Your task to perform on an android device: open app "Airtel Thanks" Image 0: 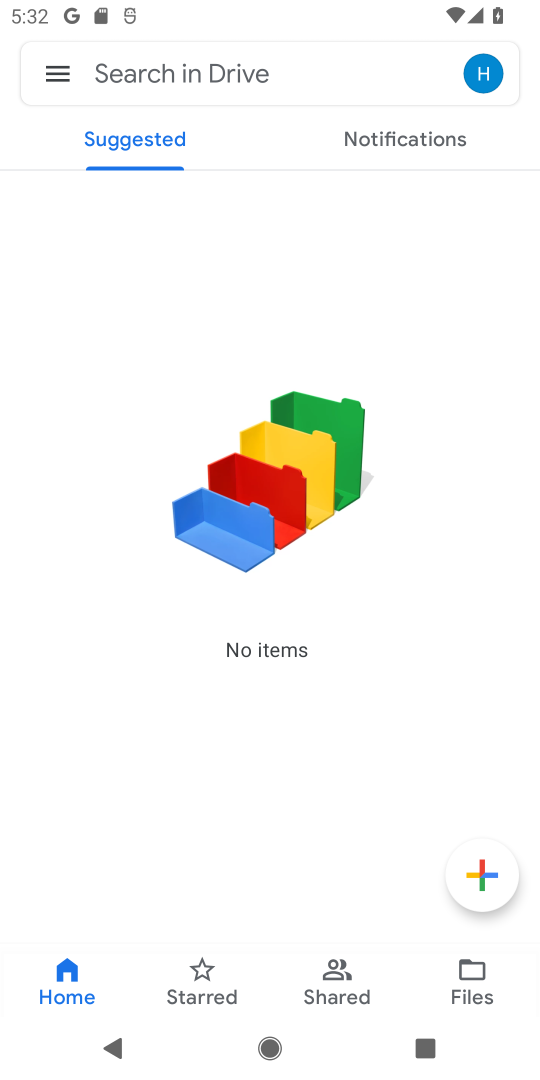
Step 0: press back button
Your task to perform on an android device: open app "Airtel Thanks" Image 1: 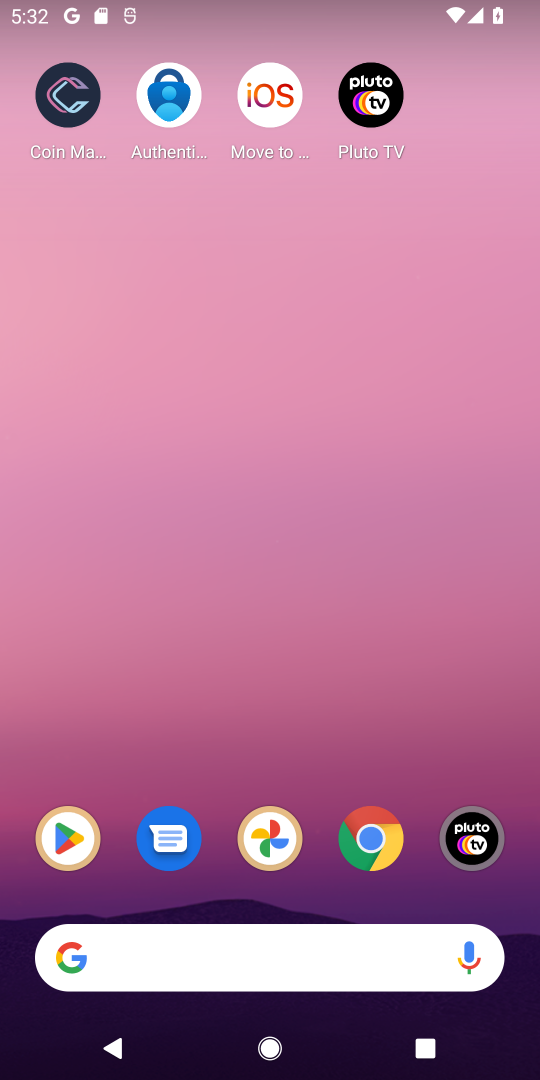
Step 1: click (69, 834)
Your task to perform on an android device: open app "Airtel Thanks" Image 2: 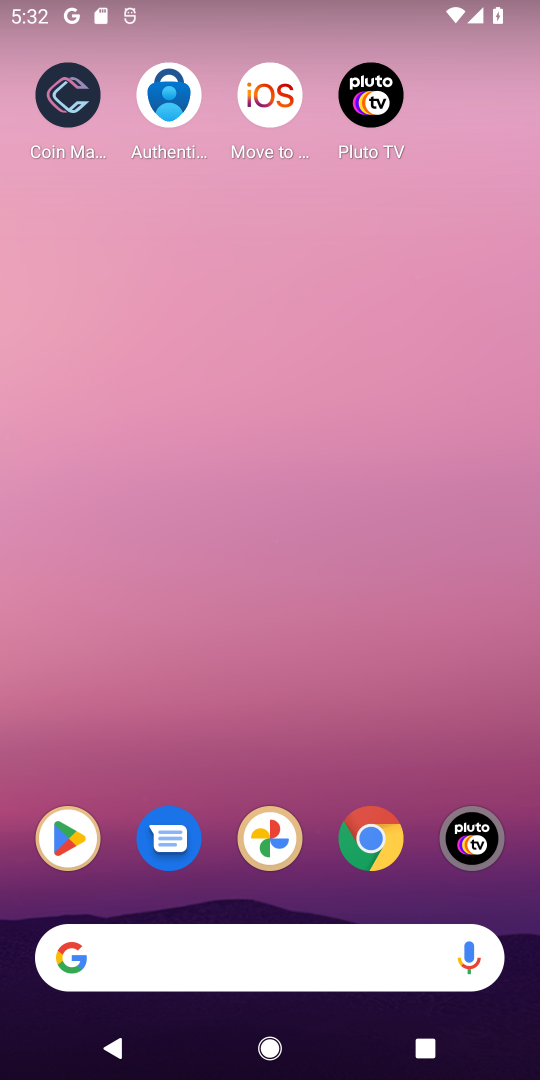
Step 2: click (64, 824)
Your task to perform on an android device: open app "Airtel Thanks" Image 3: 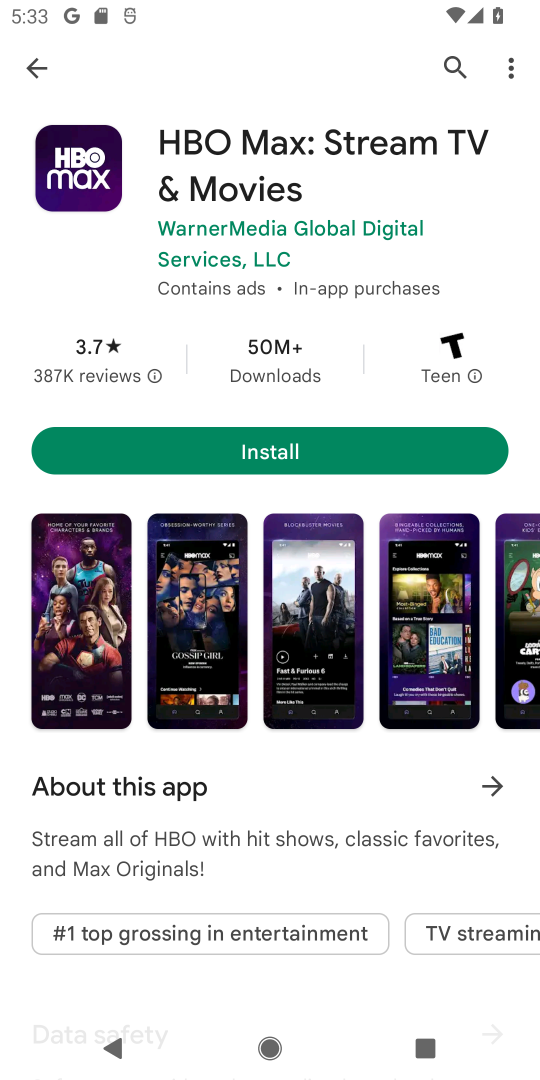
Step 3: click (454, 52)
Your task to perform on an android device: open app "Airtel Thanks" Image 4: 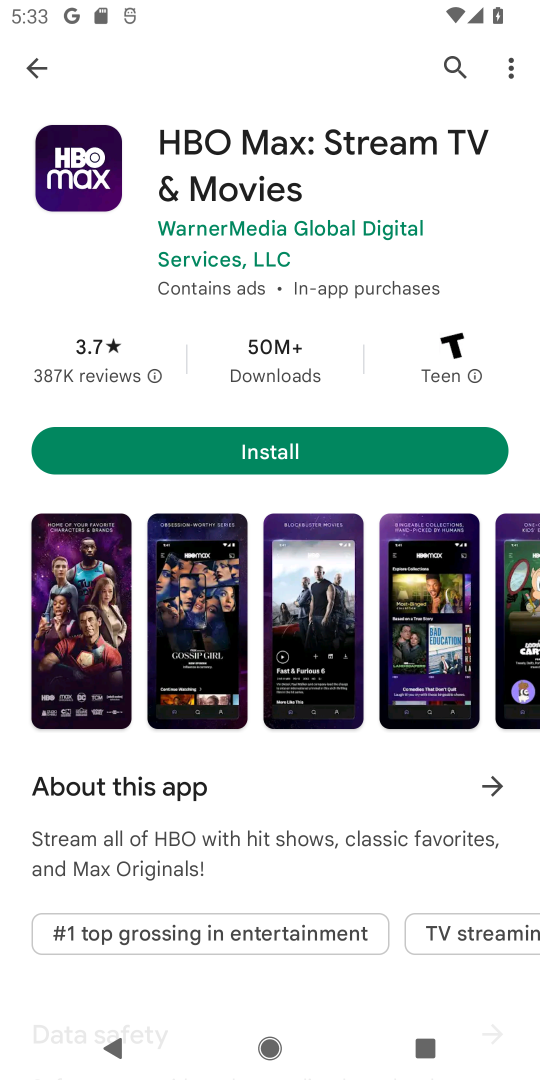
Step 4: click (452, 68)
Your task to perform on an android device: open app "Airtel Thanks" Image 5: 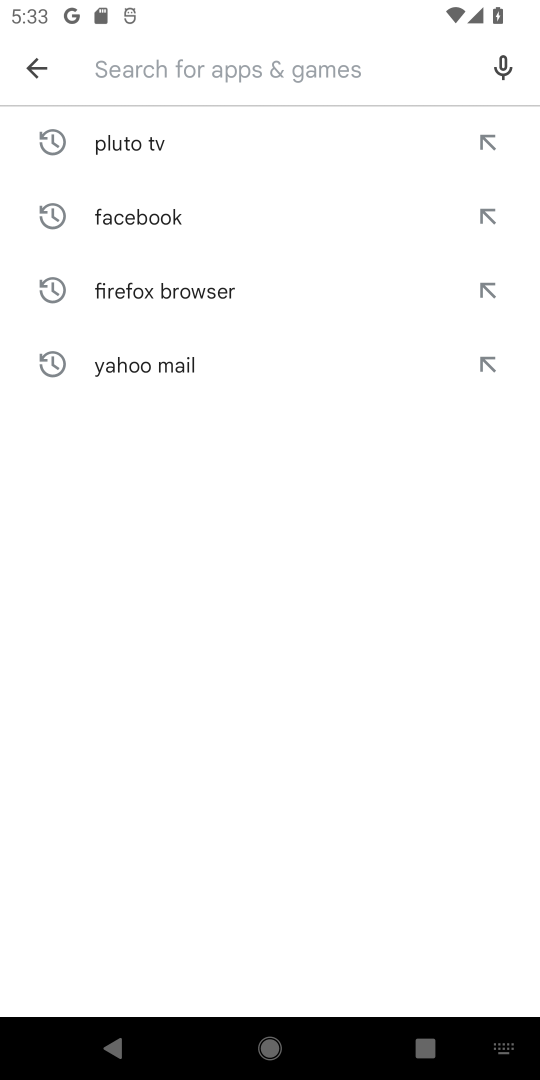
Step 5: click (154, 85)
Your task to perform on an android device: open app "Airtel Thanks" Image 6: 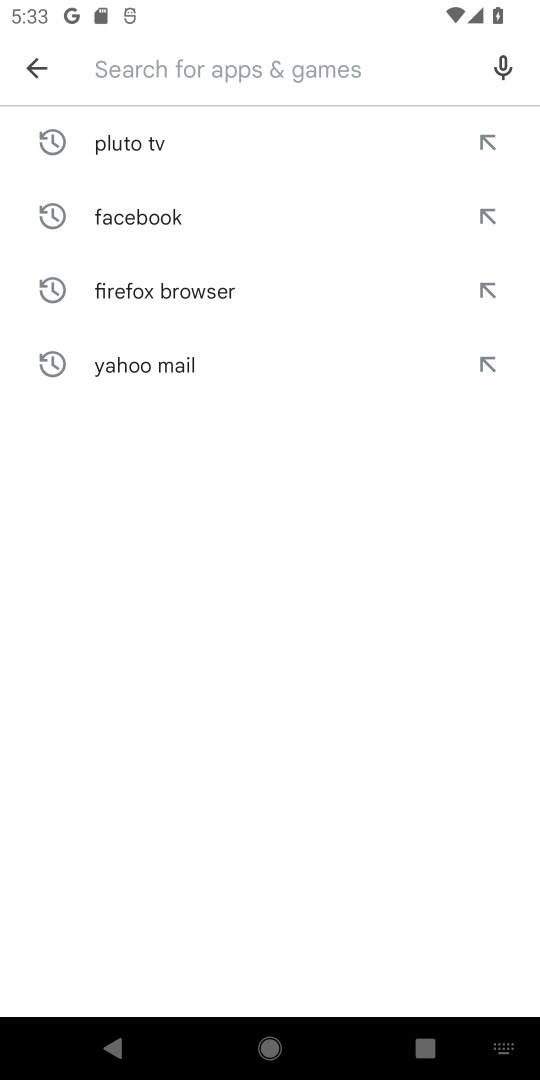
Step 6: type "airtel thanks"
Your task to perform on an android device: open app "Airtel Thanks" Image 7: 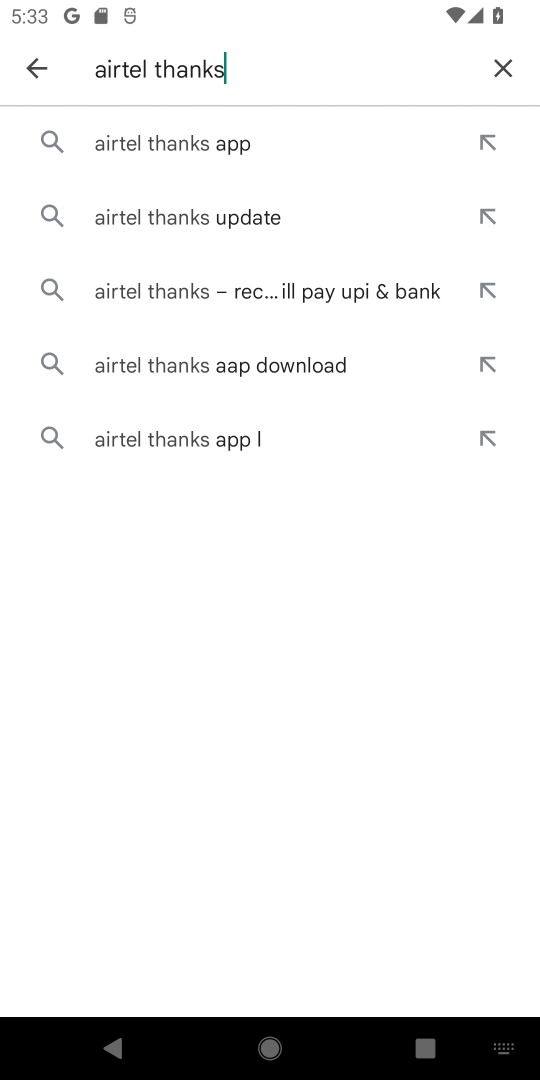
Step 7: click (131, 148)
Your task to perform on an android device: open app "Airtel Thanks" Image 8: 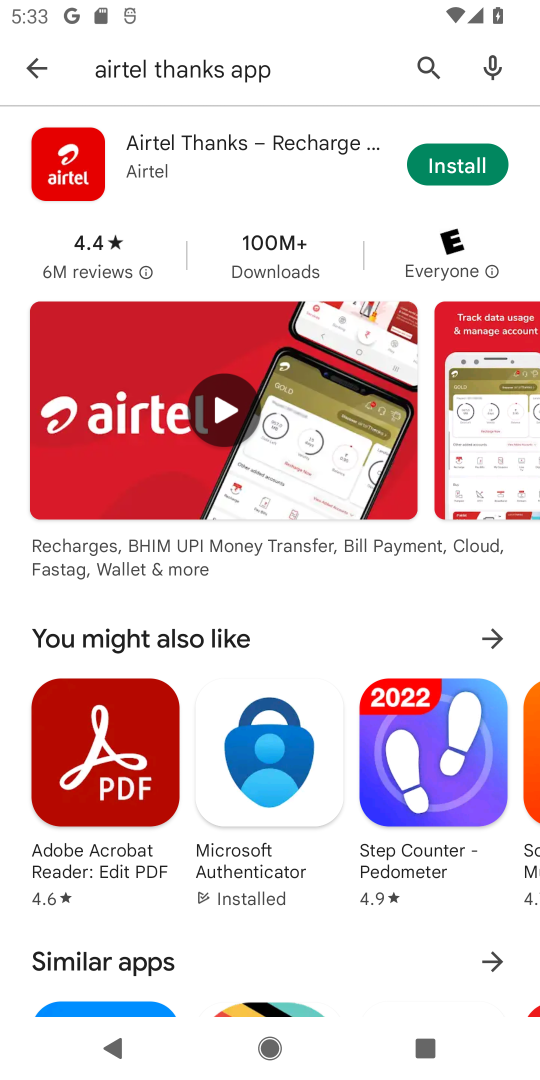
Step 8: task complete